Your task to perform on an android device: open wifi settings Image 0: 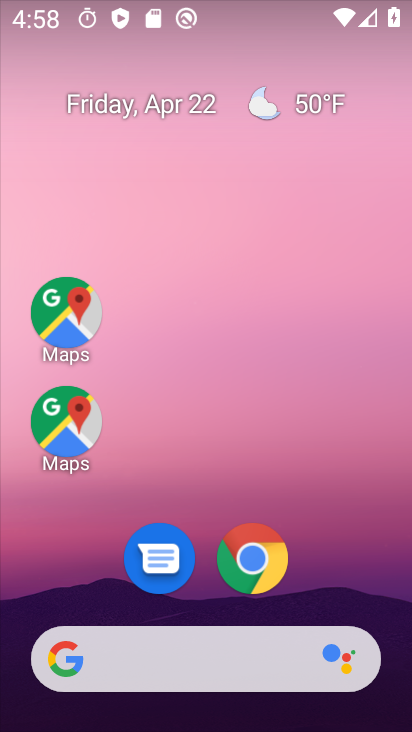
Step 0: drag from (269, 327) to (246, 194)
Your task to perform on an android device: open wifi settings Image 1: 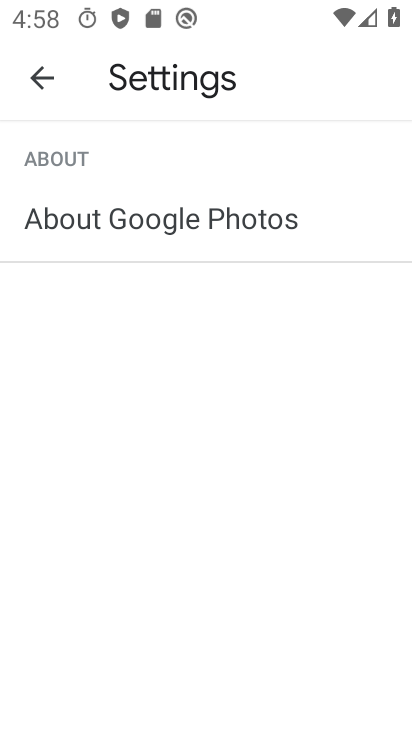
Step 1: press home button
Your task to perform on an android device: open wifi settings Image 2: 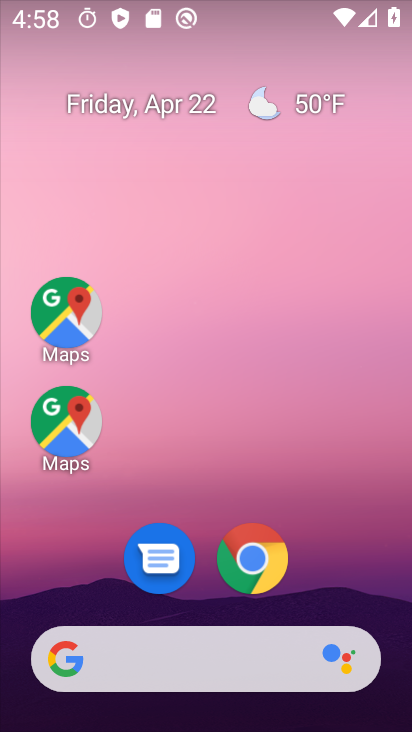
Step 2: drag from (332, 604) to (286, 103)
Your task to perform on an android device: open wifi settings Image 3: 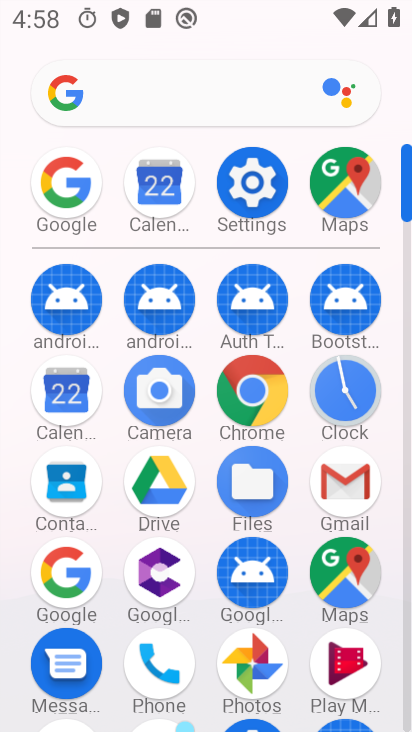
Step 3: click (256, 206)
Your task to perform on an android device: open wifi settings Image 4: 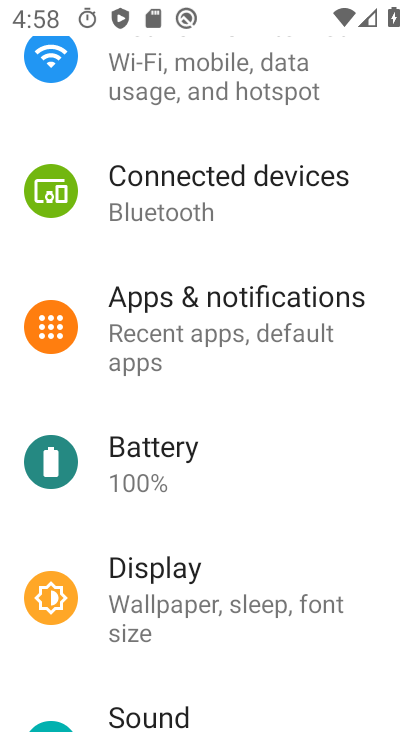
Step 4: click (230, 82)
Your task to perform on an android device: open wifi settings Image 5: 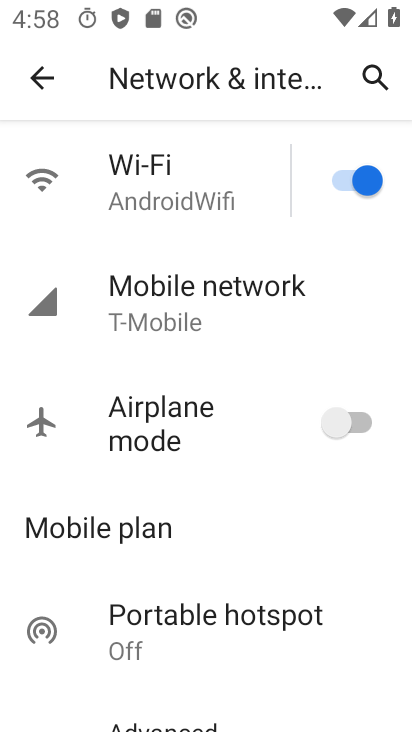
Step 5: task complete